Your task to perform on an android device: toggle location history Image 0: 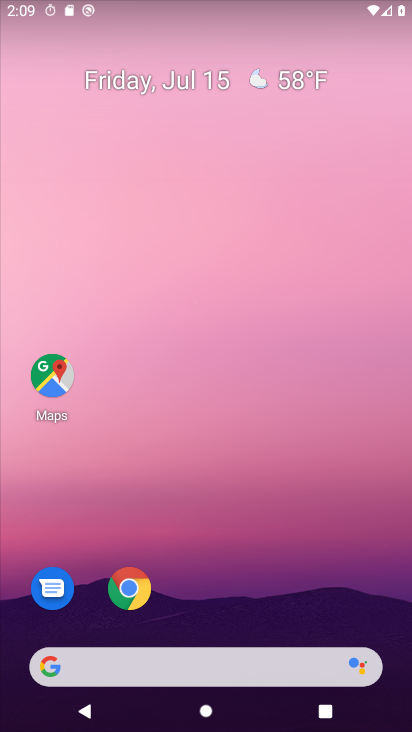
Step 0: drag from (200, 568) to (260, 13)
Your task to perform on an android device: toggle location history Image 1: 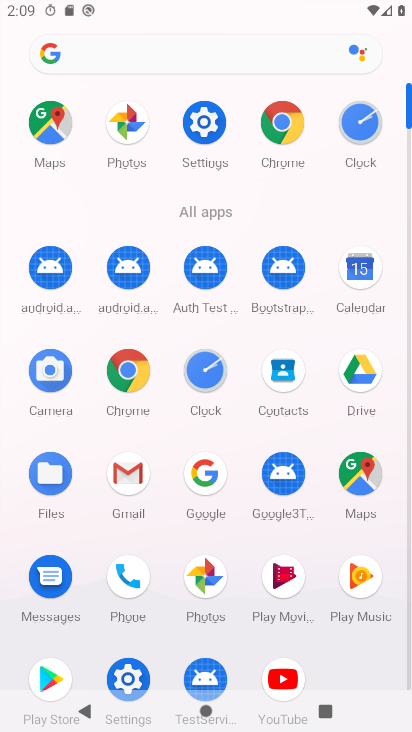
Step 1: click (198, 133)
Your task to perform on an android device: toggle location history Image 2: 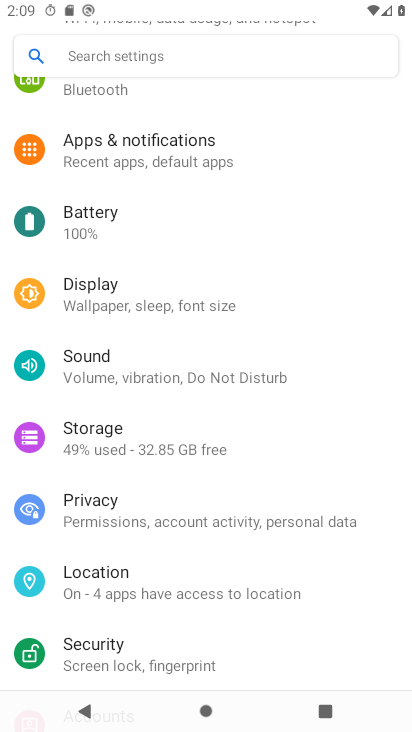
Step 2: click (96, 576)
Your task to perform on an android device: toggle location history Image 3: 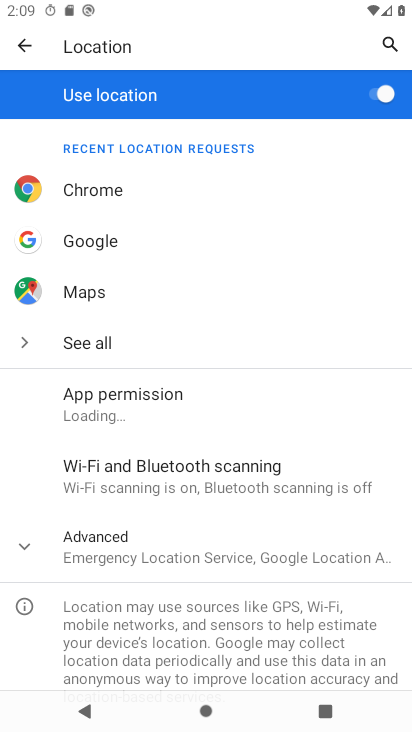
Step 3: click (126, 557)
Your task to perform on an android device: toggle location history Image 4: 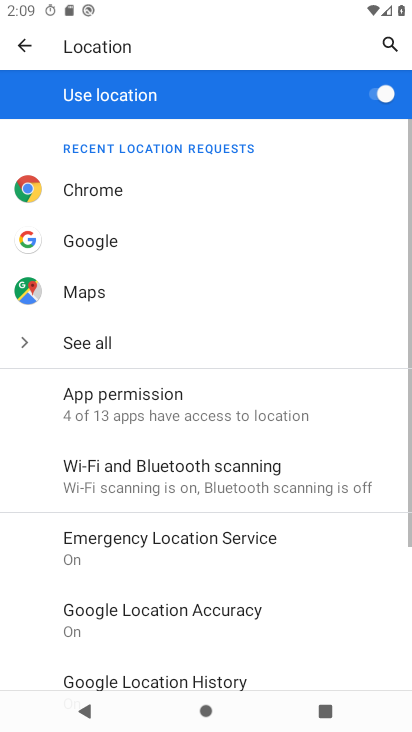
Step 4: click (123, 673)
Your task to perform on an android device: toggle location history Image 5: 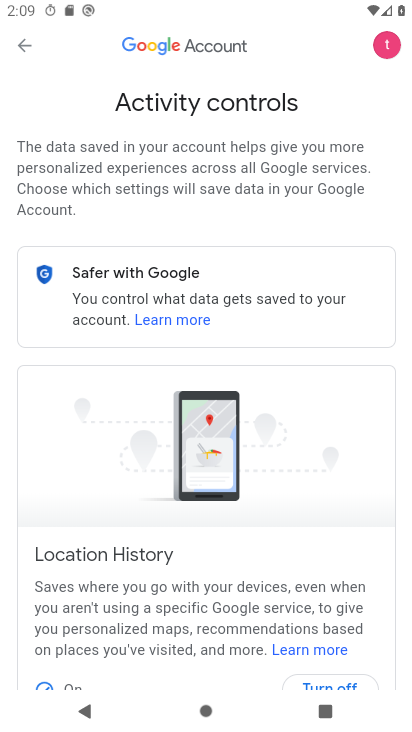
Step 5: drag from (347, 661) to (303, 314)
Your task to perform on an android device: toggle location history Image 6: 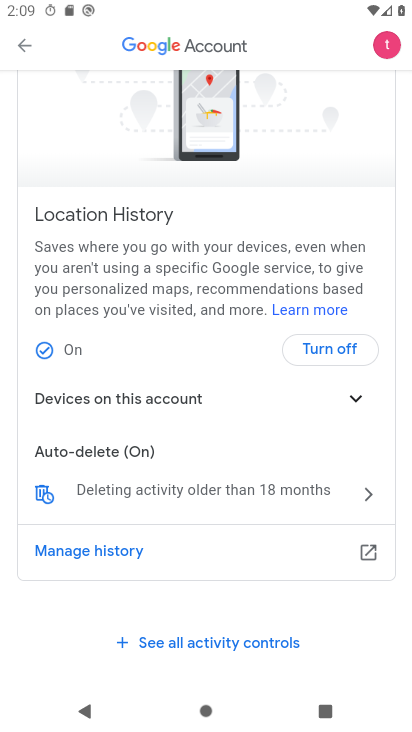
Step 6: click (344, 343)
Your task to perform on an android device: toggle location history Image 7: 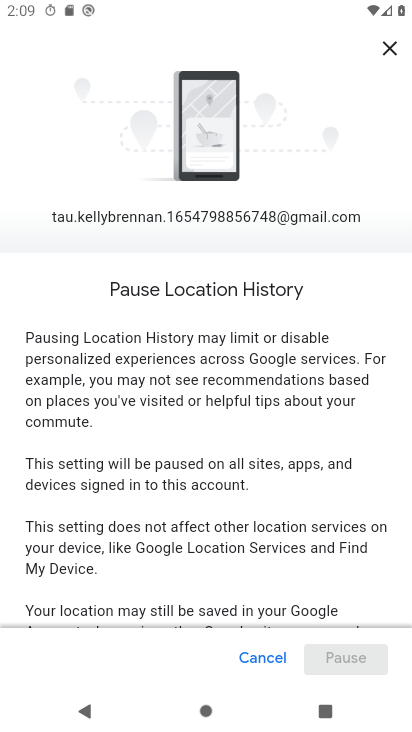
Step 7: drag from (290, 539) to (271, 147)
Your task to perform on an android device: toggle location history Image 8: 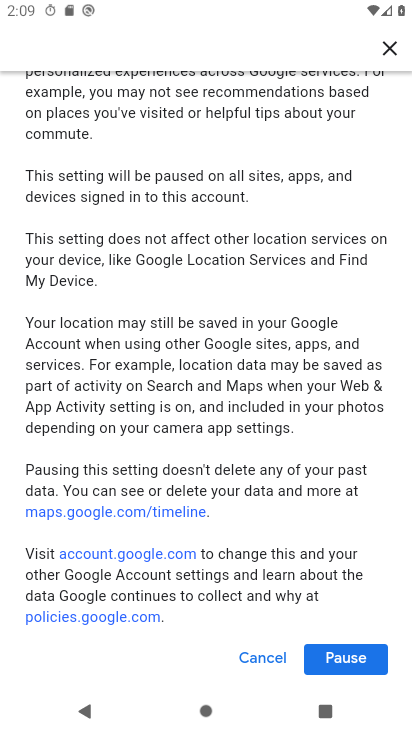
Step 8: click (342, 652)
Your task to perform on an android device: toggle location history Image 9: 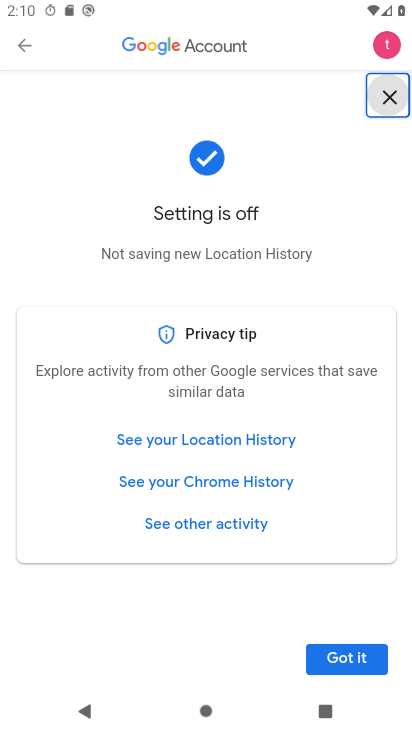
Step 9: click (342, 654)
Your task to perform on an android device: toggle location history Image 10: 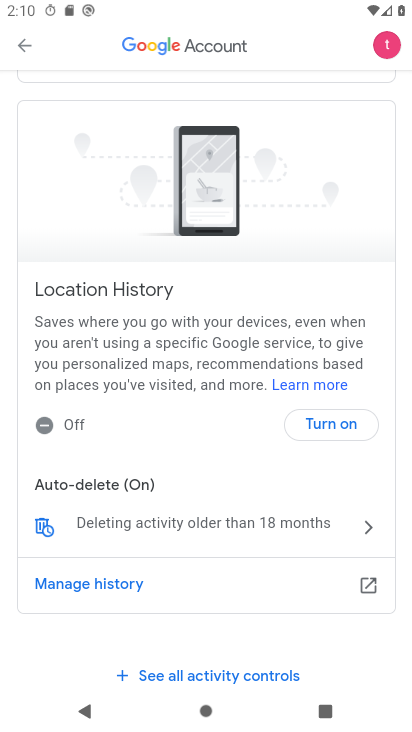
Step 10: task complete